Your task to perform on an android device: Install the Pandora app Image 0: 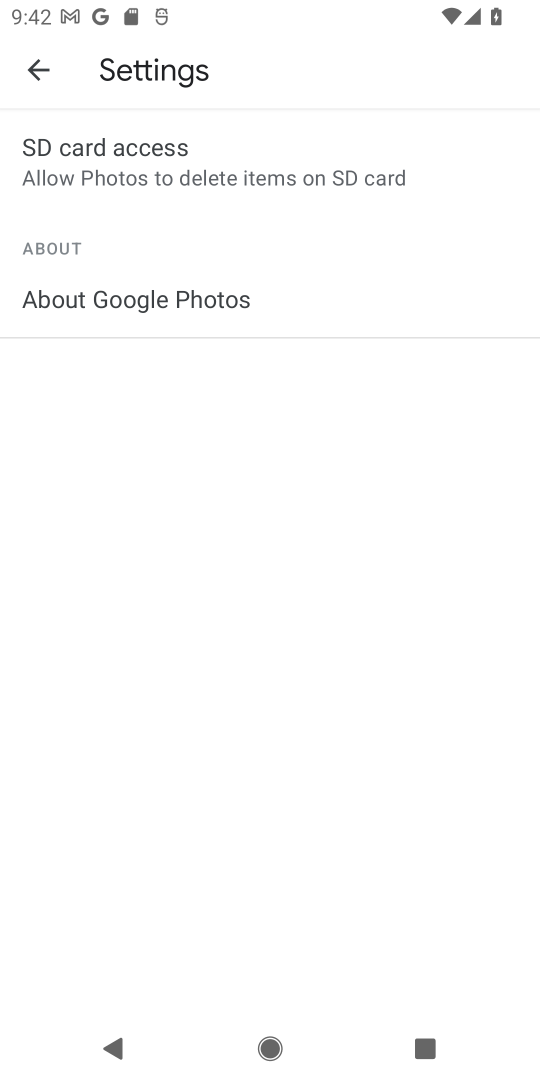
Step 0: press back button
Your task to perform on an android device: Install the Pandora app Image 1: 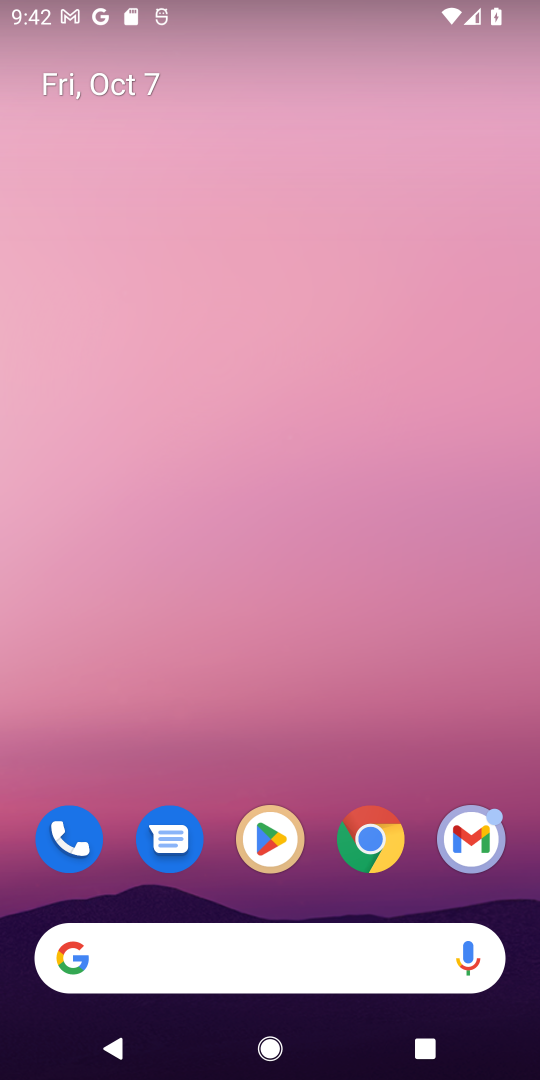
Step 1: click (367, 828)
Your task to perform on an android device: Install the Pandora app Image 2: 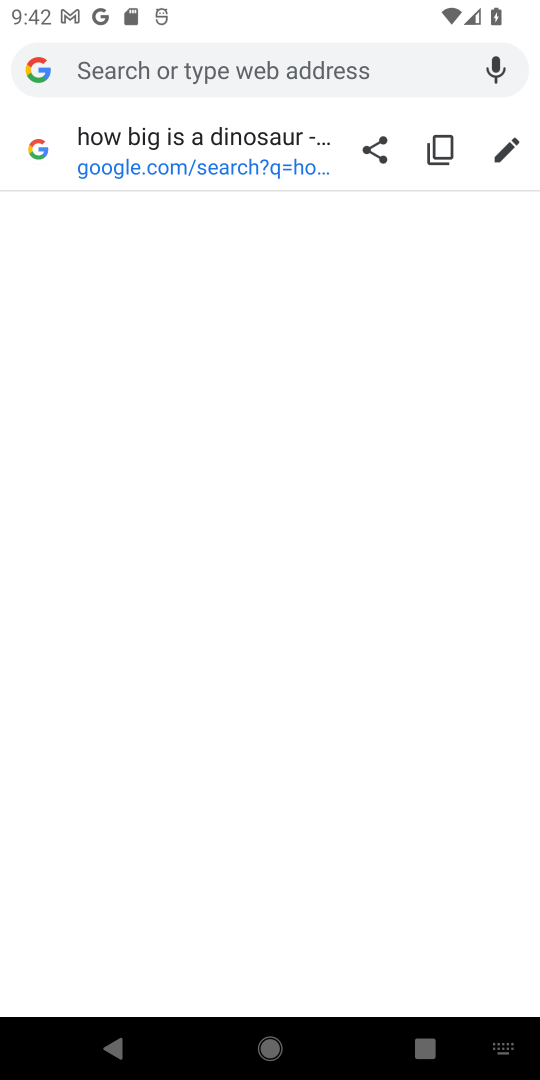
Step 2: press home button
Your task to perform on an android device: Install the Pandora app Image 3: 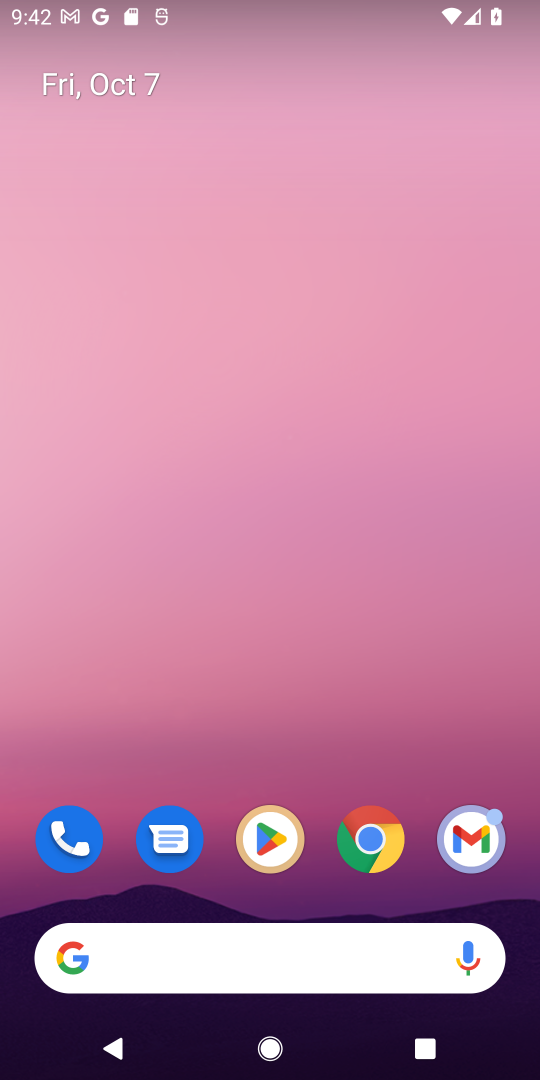
Step 3: drag from (290, 474) to (286, 331)
Your task to perform on an android device: Install the Pandora app Image 4: 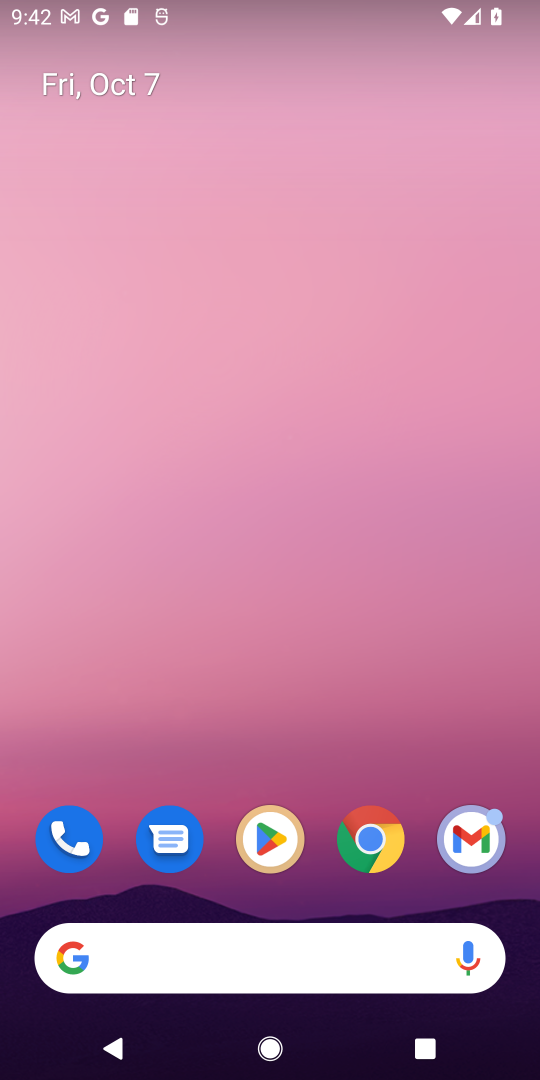
Step 4: drag from (250, 737) to (326, 203)
Your task to perform on an android device: Install the Pandora app Image 5: 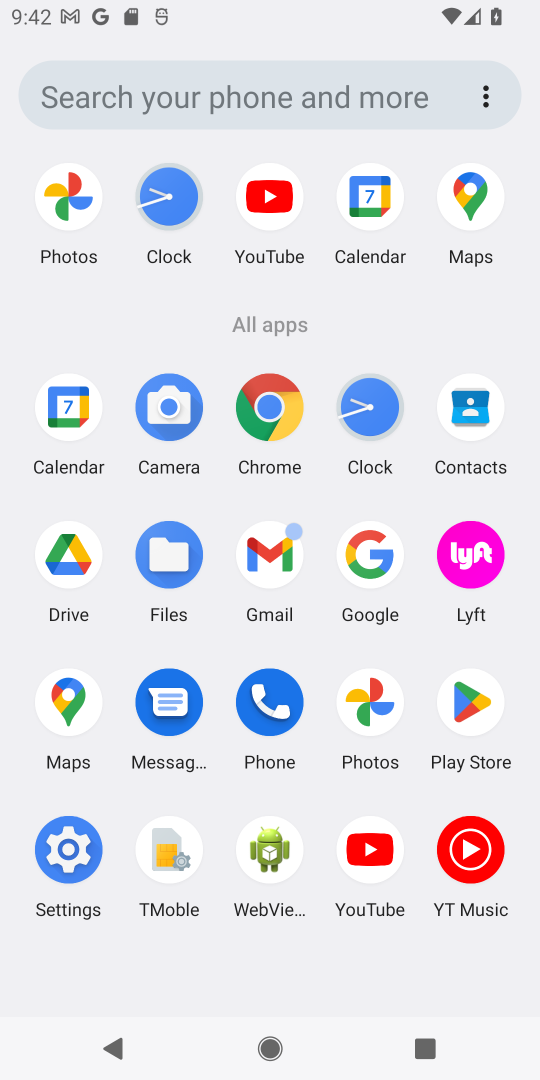
Step 5: click (488, 705)
Your task to perform on an android device: Install the Pandora app Image 6: 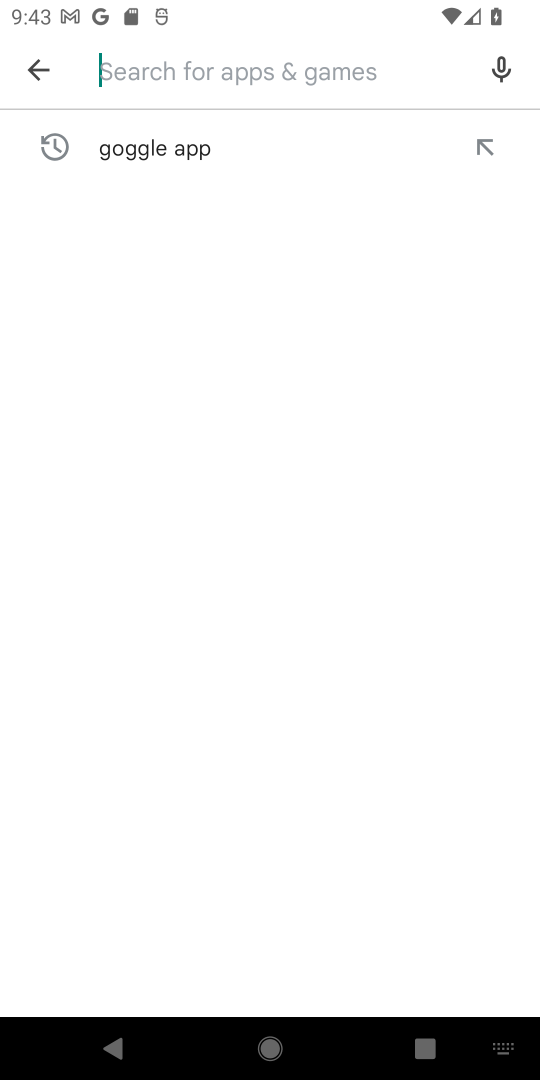
Step 6: type "pandor"
Your task to perform on an android device: Install the Pandora app Image 7: 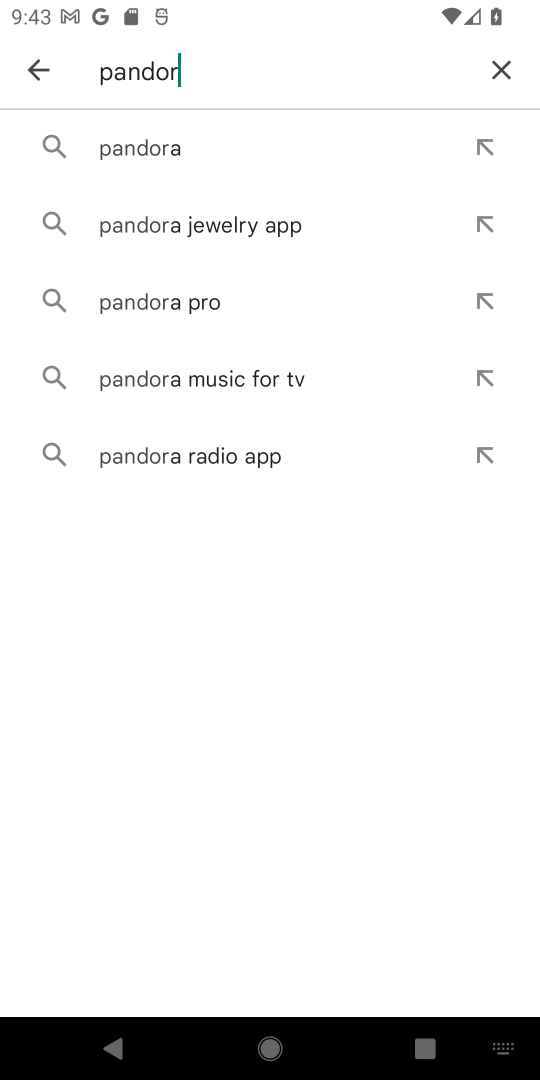
Step 7: press home button
Your task to perform on an android device: Install the Pandora app Image 8: 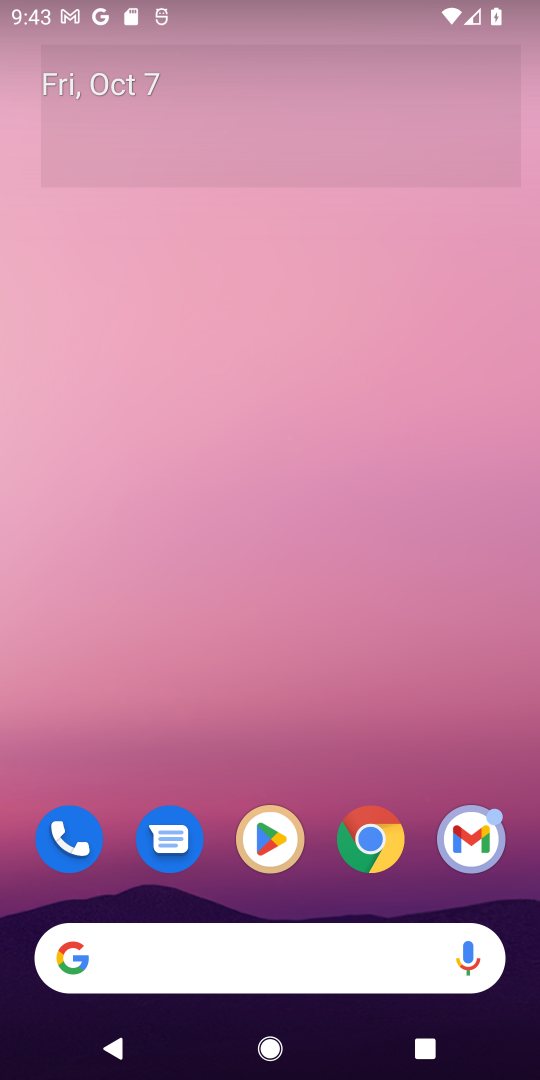
Step 8: drag from (261, 616) to (405, 95)
Your task to perform on an android device: Install the Pandora app Image 9: 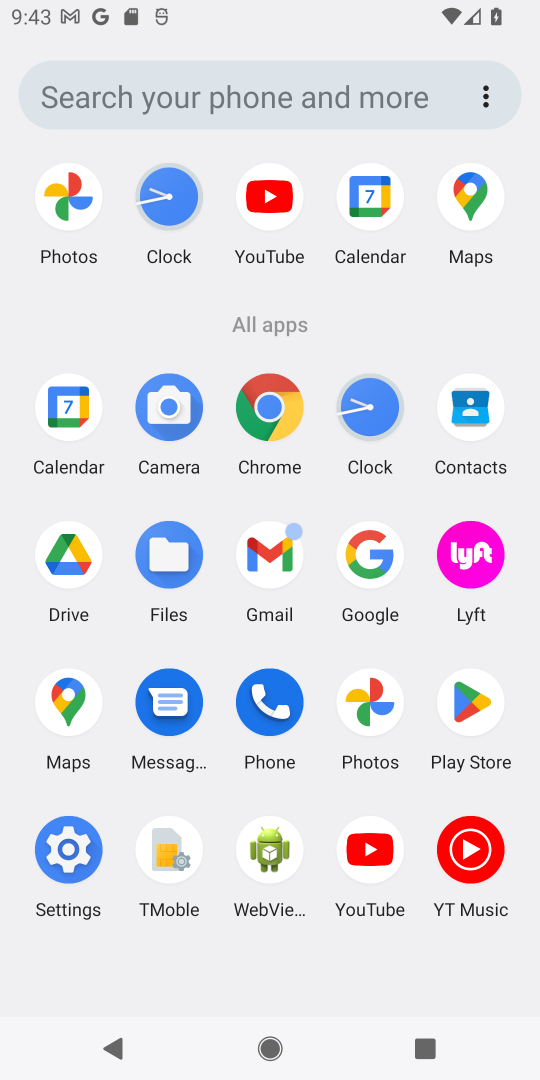
Step 9: click (459, 690)
Your task to perform on an android device: Install the Pandora app Image 10: 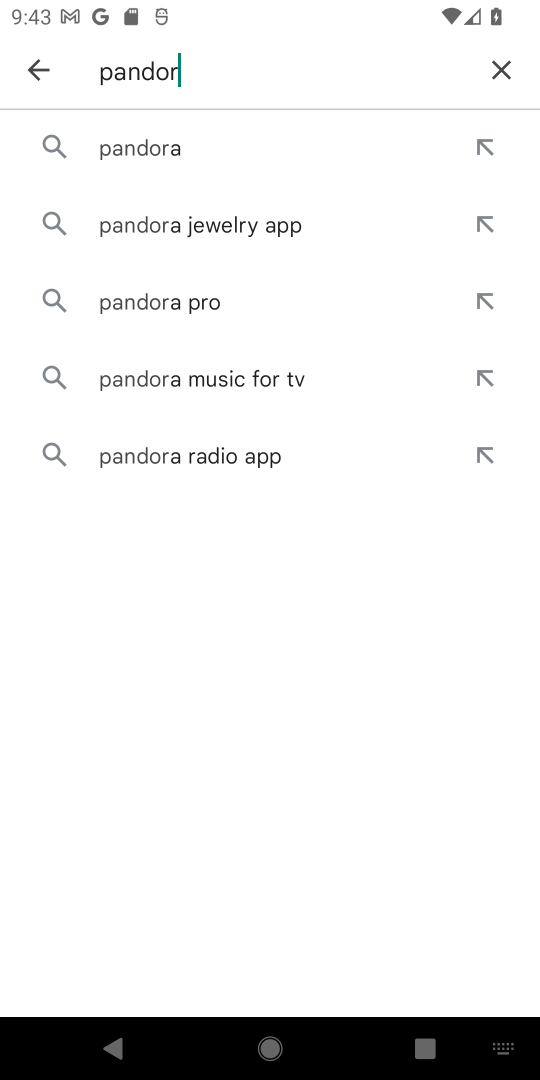
Step 10: click (227, 459)
Your task to perform on an android device: Install the Pandora app Image 11: 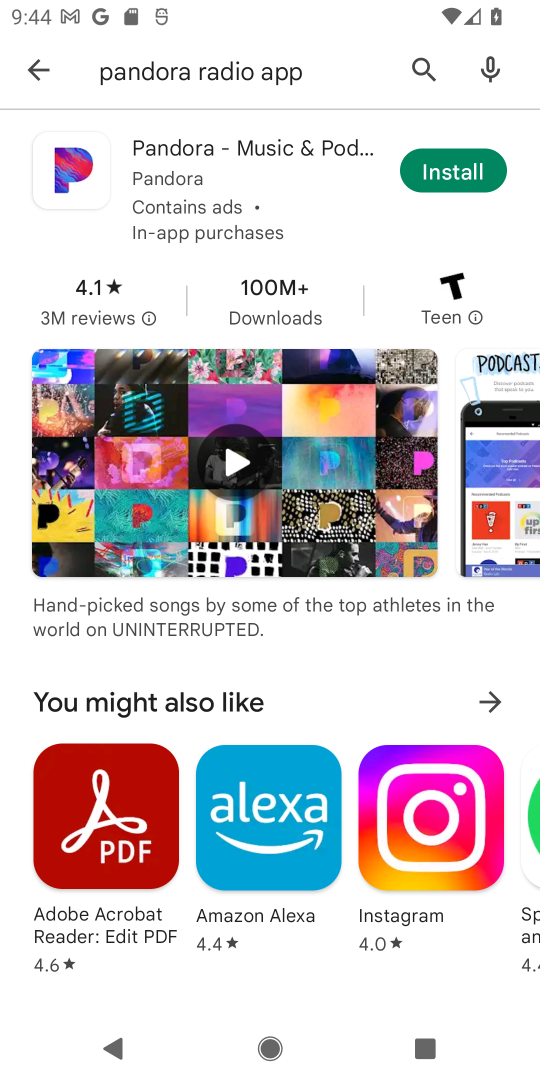
Step 11: click (460, 176)
Your task to perform on an android device: Install the Pandora app Image 12: 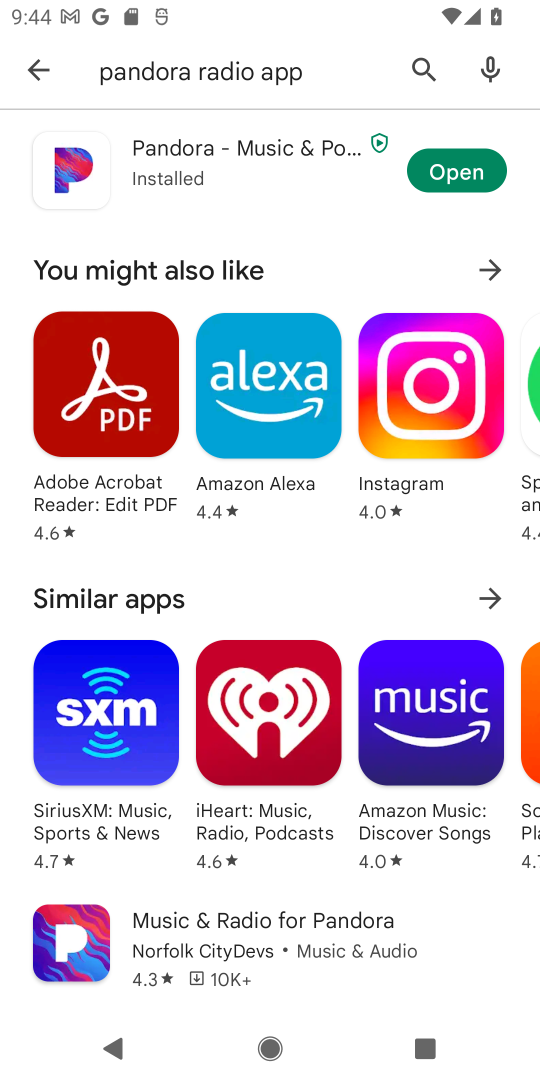
Step 12: click (453, 182)
Your task to perform on an android device: Install the Pandora app Image 13: 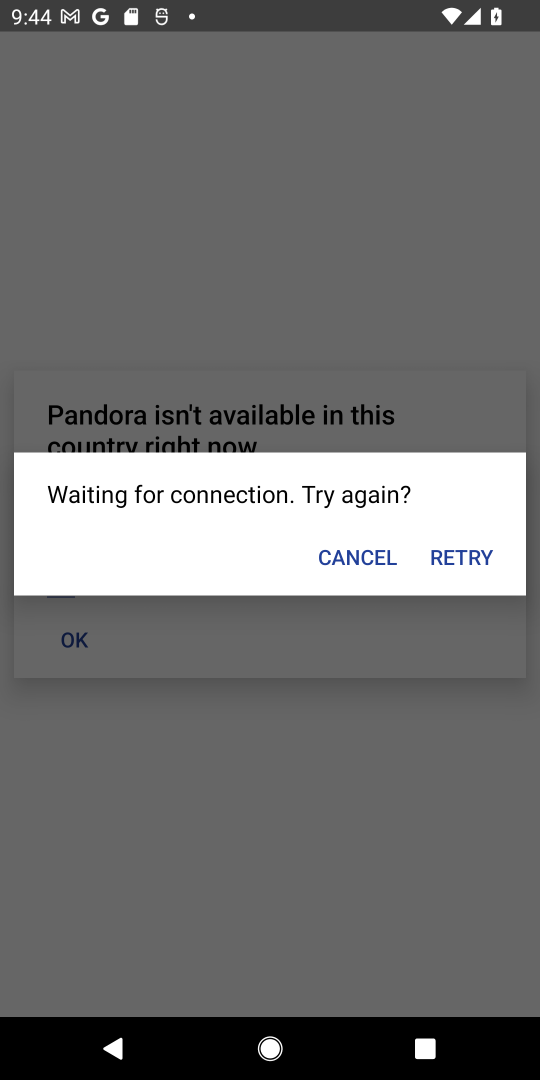
Step 13: click (367, 550)
Your task to perform on an android device: Install the Pandora app Image 14: 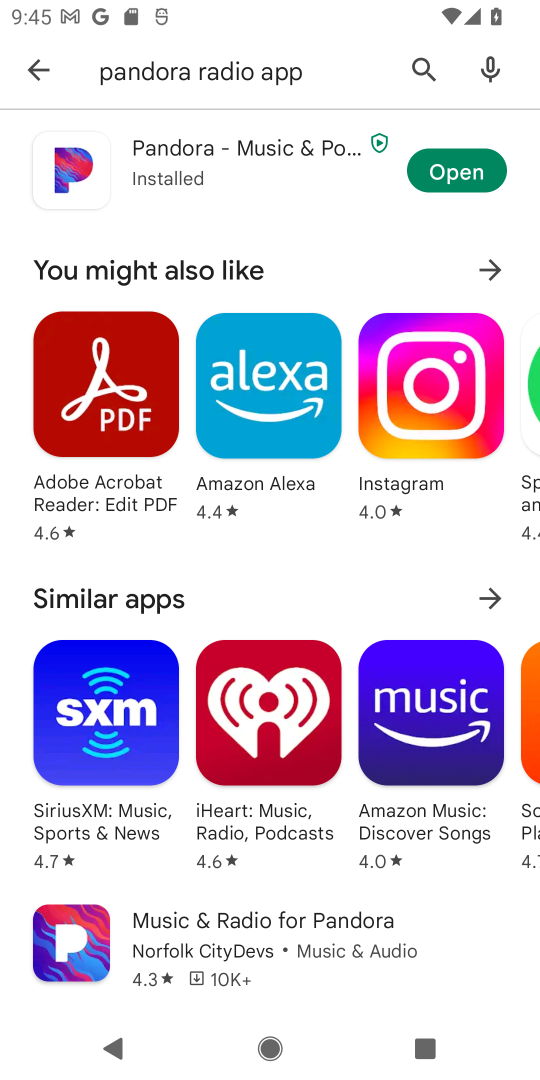
Step 14: task complete